Your task to perform on an android device: toggle notifications settings in the gmail app Image 0: 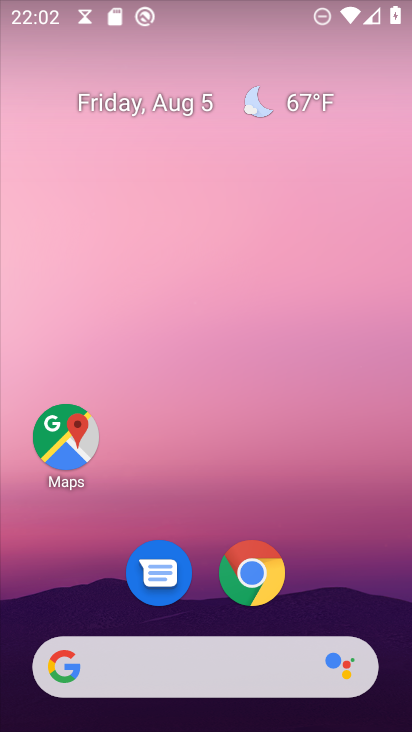
Step 0: drag from (213, 664) to (236, 190)
Your task to perform on an android device: toggle notifications settings in the gmail app Image 1: 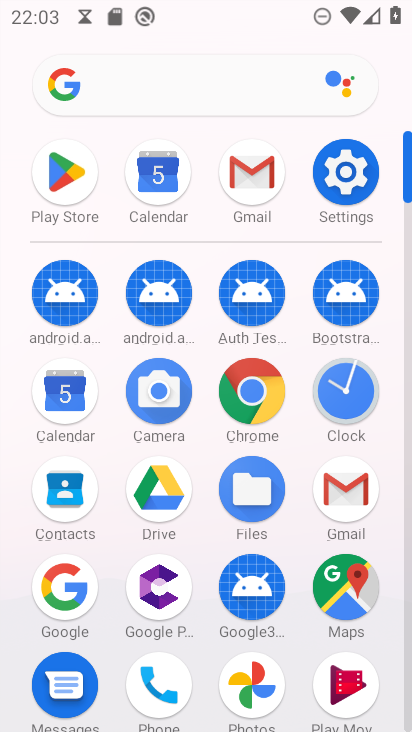
Step 1: click (242, 170)
Your task to perform on an android device: toggle notifications settings in the gmail app Image 2: 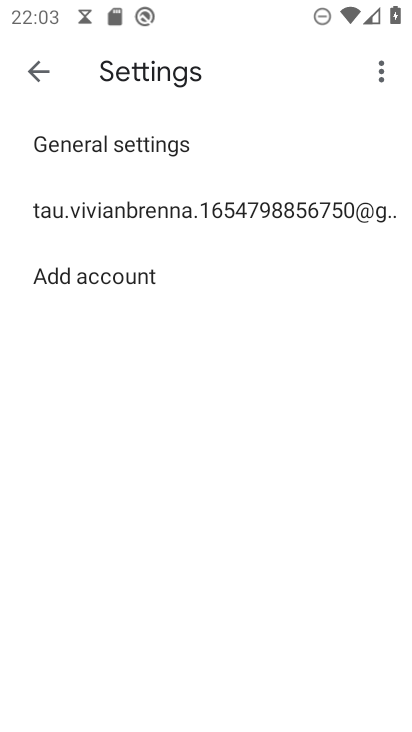
Step 2: click (146, 144)
Your task to perform on an android device: toggle notifications settings in the gmail app Image 3: 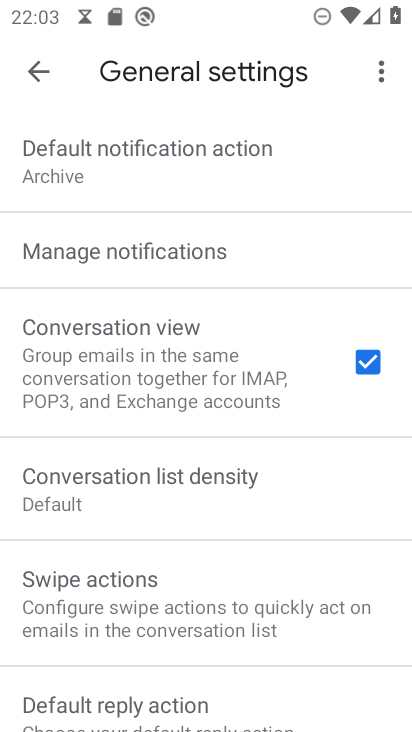
Step 3: click (141, 258)
Your task to perform on an android device: toggle notifications settings in the gmail app Image 4: 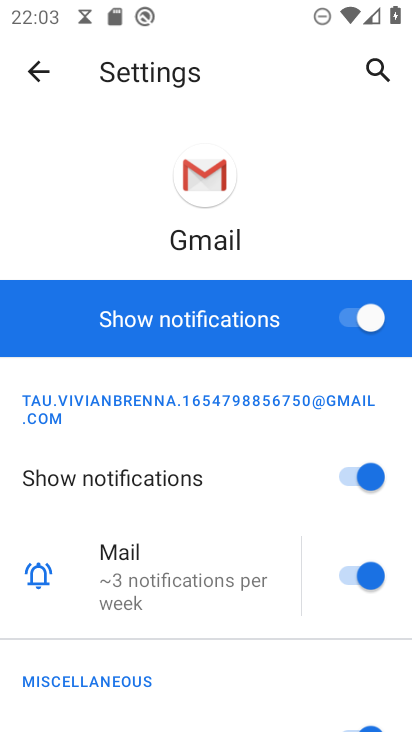
Step 4: click (338, 316)
Your task to perform on an android device: toggle notifications settings in the gmail app Image 5: 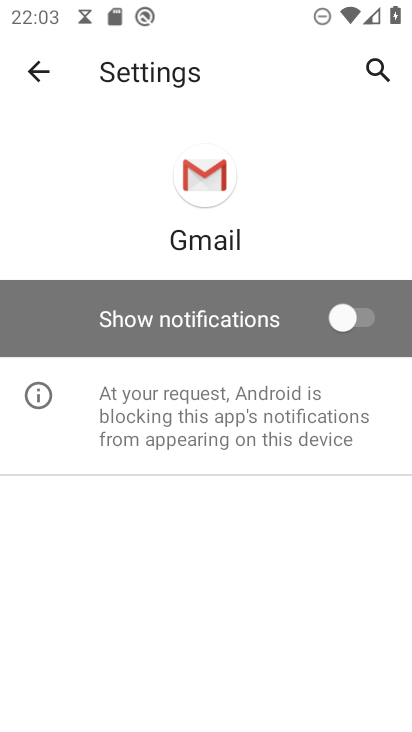
Step 5: task complete